Your task to perform on an android device: find snoozed emails in the gmail app Image 0: 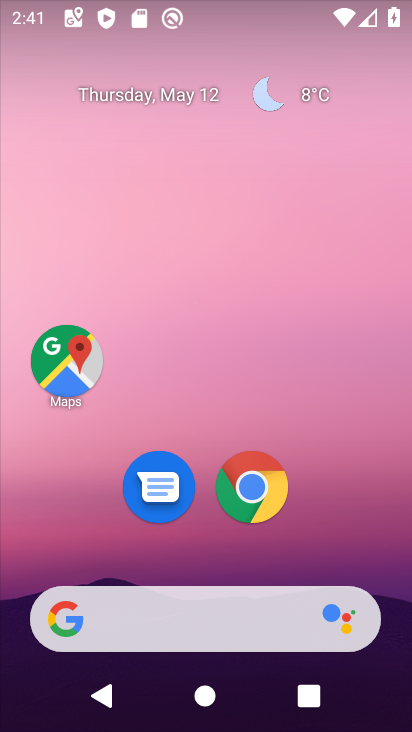
Step 0: drag from (339, 483) to (305, 101)
Your task to perform on an android device: find snoozed emails in the gmail app Image 1: 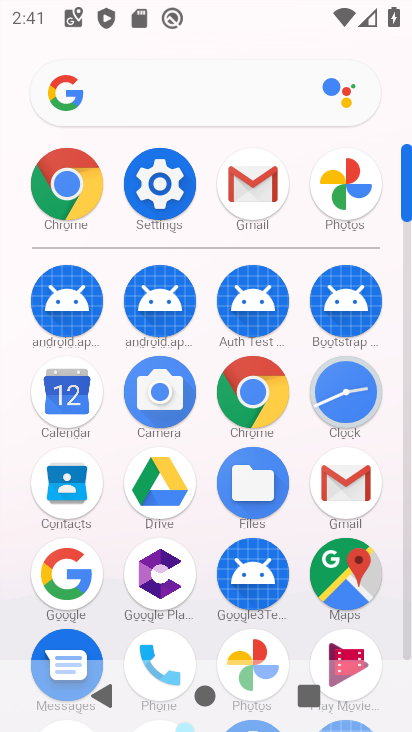
Step 1: click (347, 471)
Your task to perform on an android device: find snoozed emails in the gmail app Image 2: 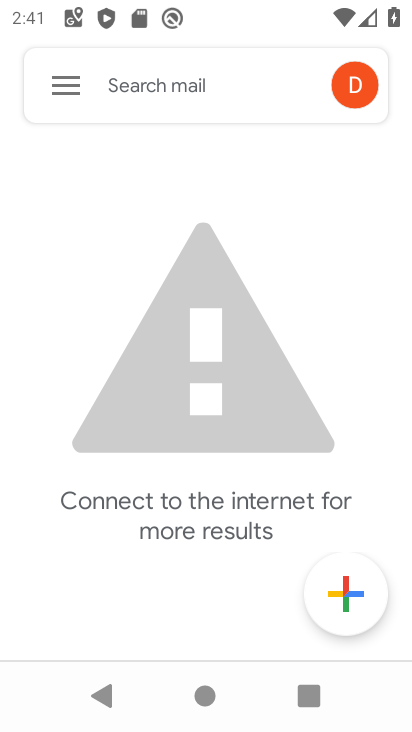
Step 2: click (58, 86)
Your task to perform on an android device: find snoozed emails in the gmail app Image 3: 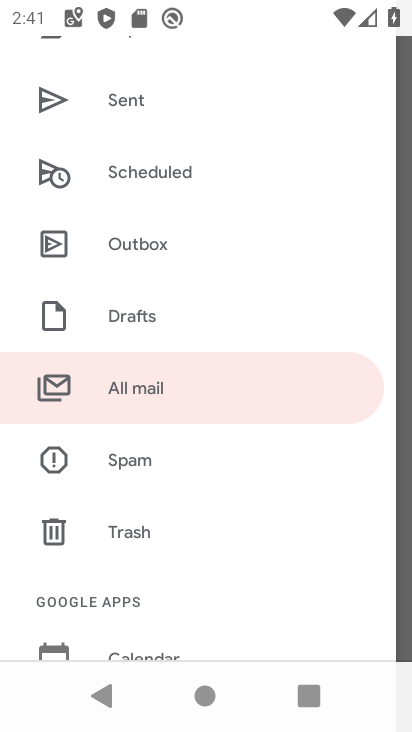
Step 3: drag from (162, 242) to (191, 582)
Your task to perform on an android device: find snoozed emails in the gmail app Image 4: 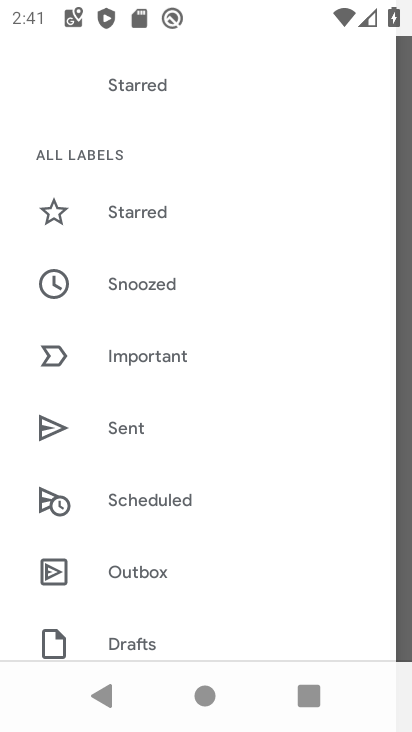
Step 4: click (159, 276)
Your task to perform on an android device: find snoozed emails in the gmail app Image 5: 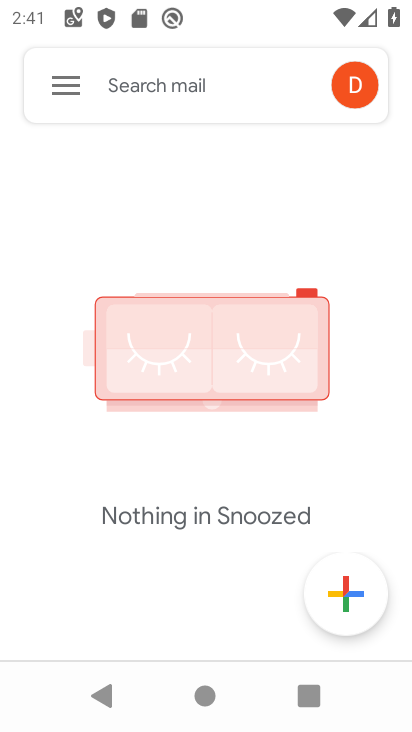
Step 5: task complete